Your task to perform on an android device: turn on priority inbox in the gmail app Image 0: 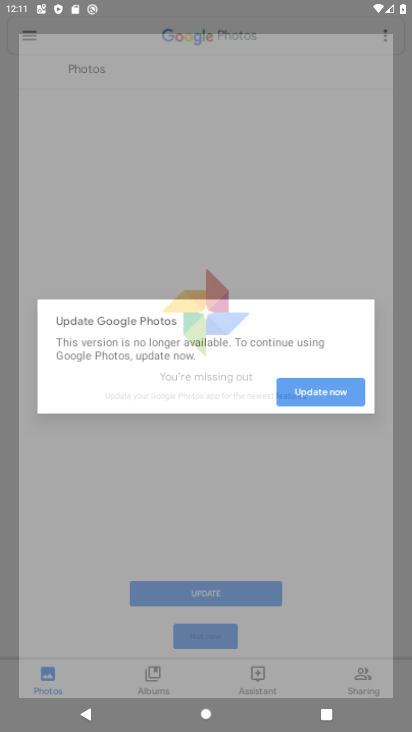
Step 0: press home button
Your task to perform on an android device: turn on priority inbox in the gmail app Image 1: 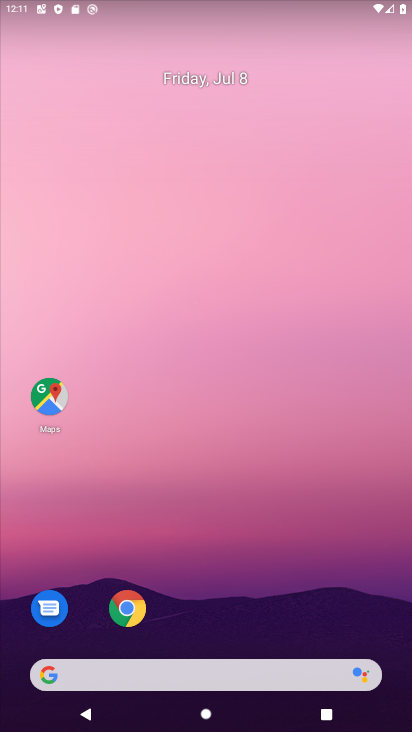
Step 1: drag from (278, 568) to (227, 21)
Your task to perform on an android device: turn on priority inbox in the gmail app Image 2: 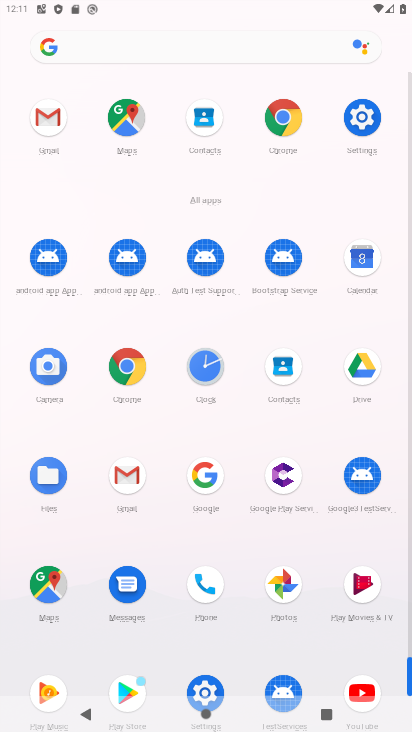
Step 2: click (39, 102)
Your task to perform on an android device: turn on priority inbox in the gmail app Image 3: 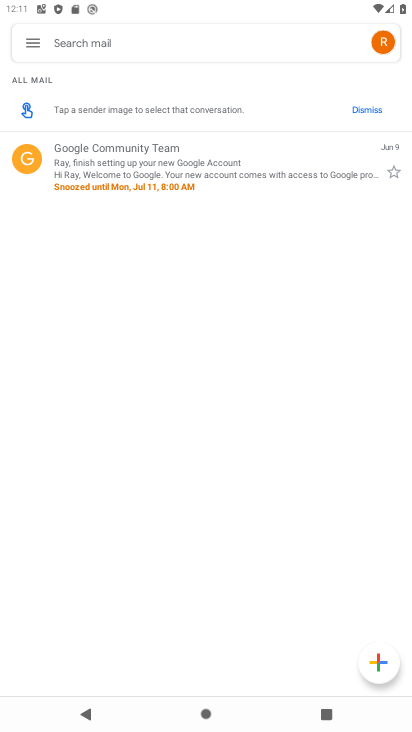
Step 3: click (34, 52)
Your task to perform on an android device: turn on priority inbox in the gmail app Image 4: 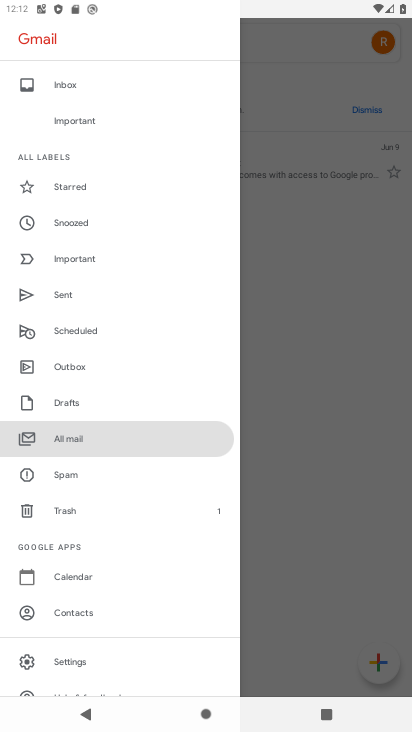
Step 4: click (32, 655)
Your task to perform on an android device: turn on priority inbox in the gmail app Image 5: 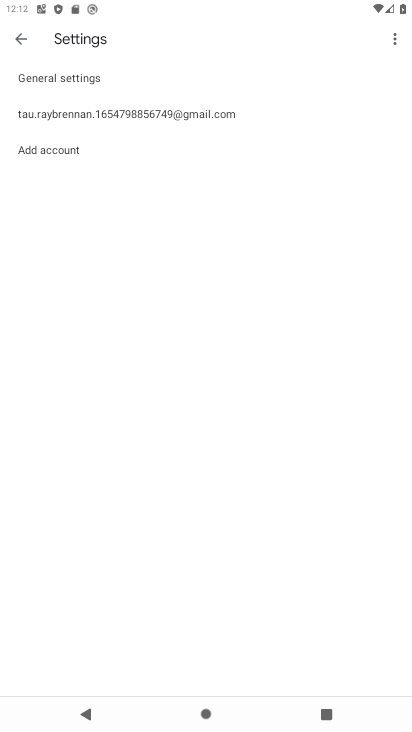
Step 5: click (75, 111)
Your task to perform on an android device: turn on priority inbox in the gmail app Image 6: 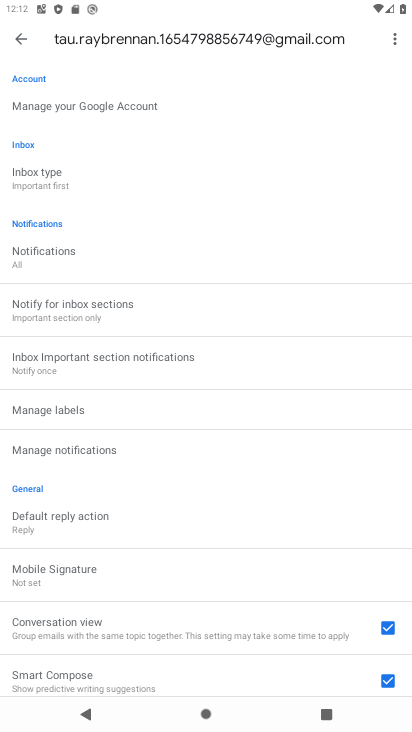
Step 6: click (70, 187)
Your task to perform on an android device: turn on priority inbox in the gmail app Image 7: 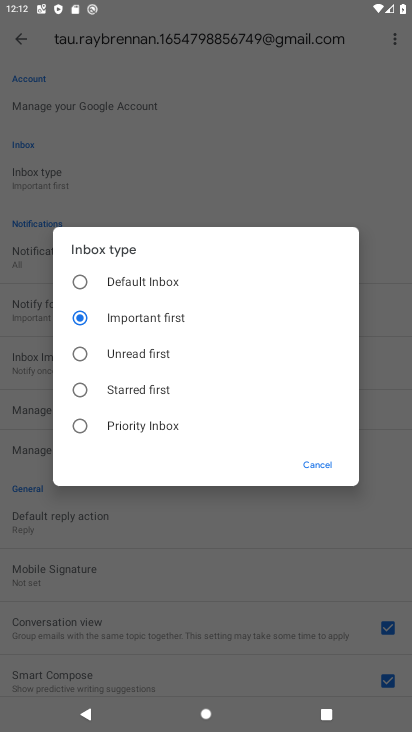
Step 7: click (106, 414)
Your task to perform on an android device: turn on priority inbox in the gmail app Image 8: 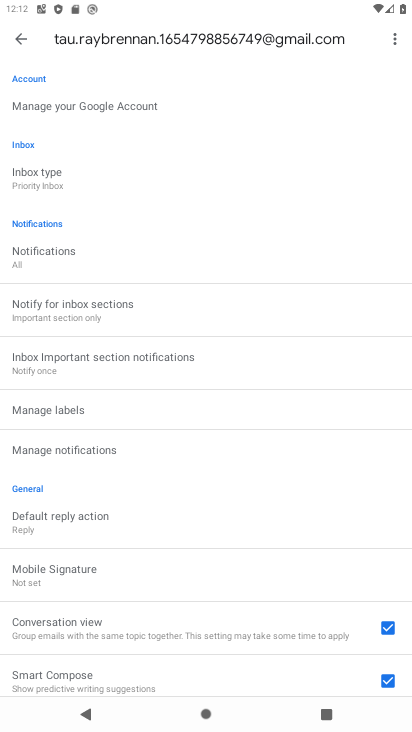
Step 8: task complete